Your task to perform on an android device: What is the recent news? Image 0: 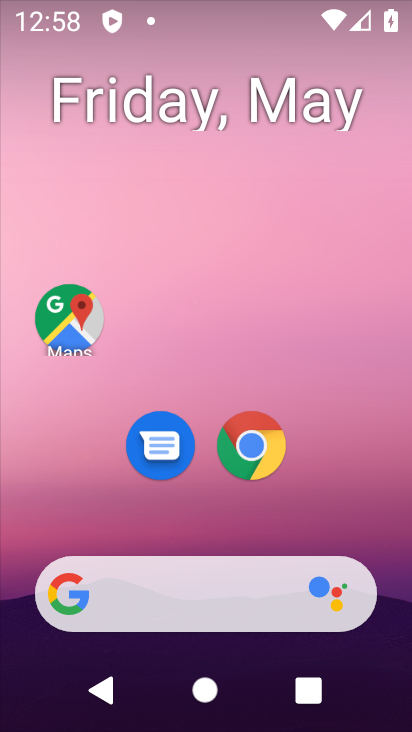
Step 0: drag from (16, 292) to (365, 326)
Your task to perform on an android device: What is the recent news? Image 1: 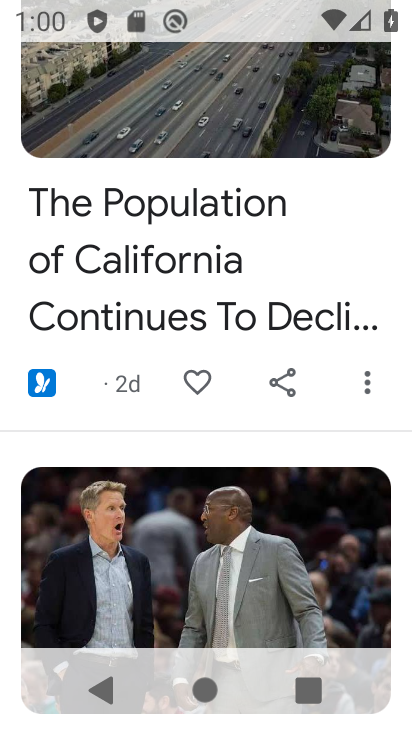
Step 1: task complete